Your task to perform on an android device: Open sound settings Image 0: 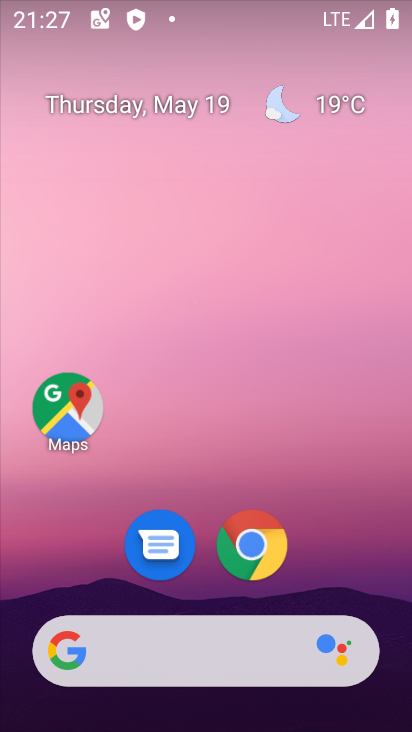
Step 0: drag from (350, 566) to (281, 158)
Your task to perform on an android device: Open sound settings Image 1: 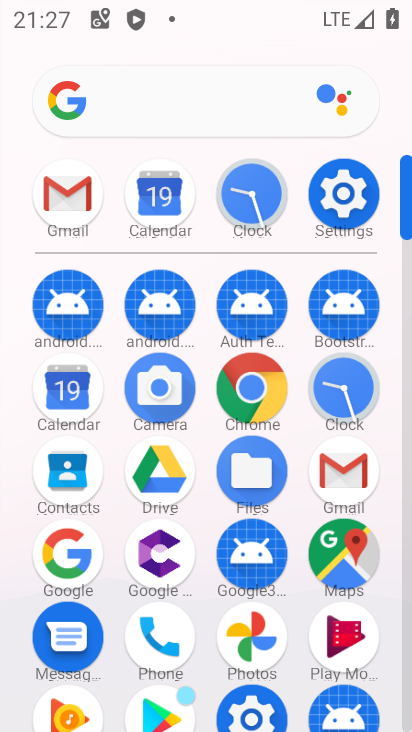
Step 1: click (359, 192)
Your task to perform on an android device: Open sound settings Image 2: 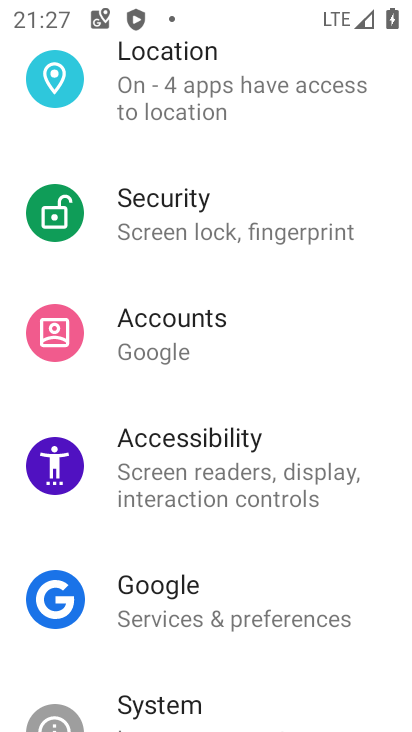
Step 2: drag from (239, 194) to (283, 596)
Your task to perform on an android device: Open sound settings Image 3: 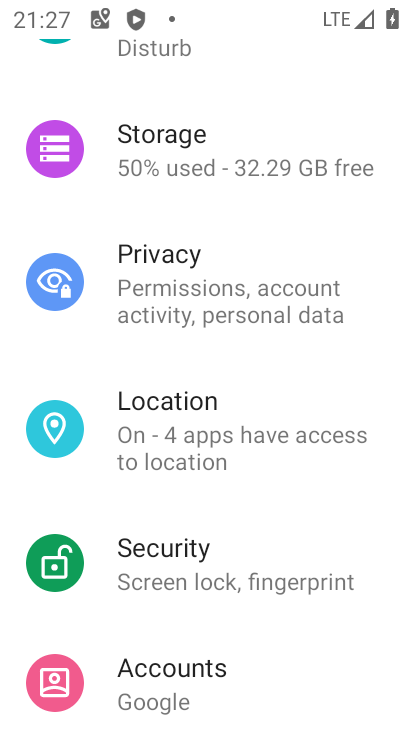
Step 3: drag from (262, 266) to (272, 561)
Your task to perform on an android device: Open sound settings Image 4: 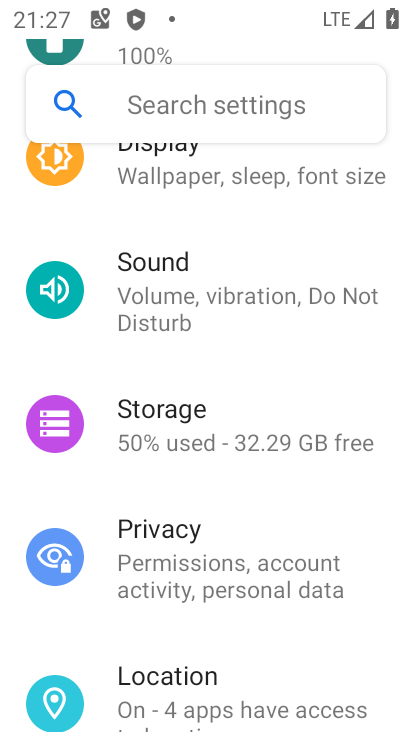
Step 4: click (223, 321)
Your task to perform on an android device: Open sound settings Image 5: 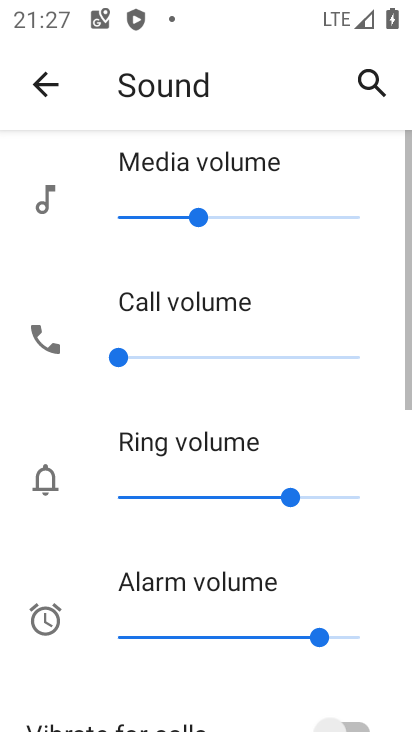
Step 5: task complete